Your task to perform on an android device: Check the news Image 0: 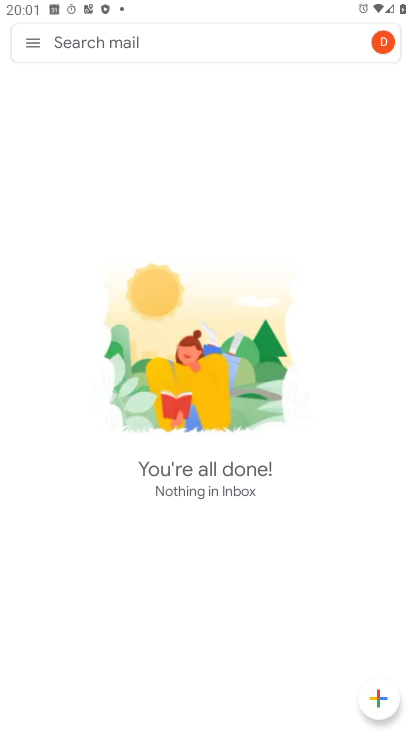
Step 0: press home button
Your task to perform on an android device: Check the news Image 1: 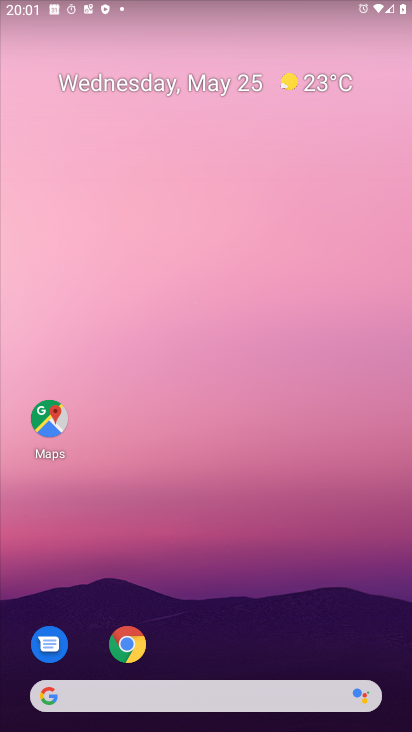
Step 1: drag from (272, 706) to (117, 13)
Your task to perform on an android device: Check the news Image 2: 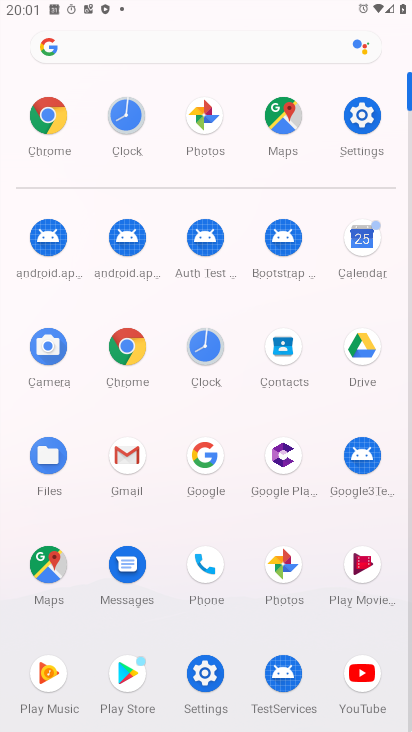
Step 2: click (134, 36)
Your task to perform on an android device: Check the news Image 3: 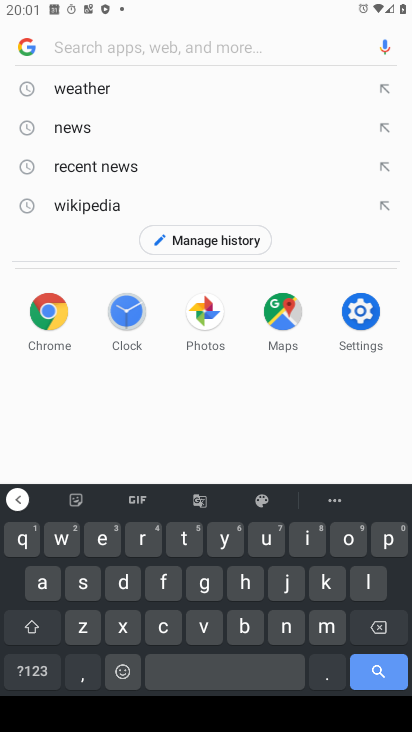
Step 3: click (83, 120)
Your task to perform on an android device: Check the news Image 4: 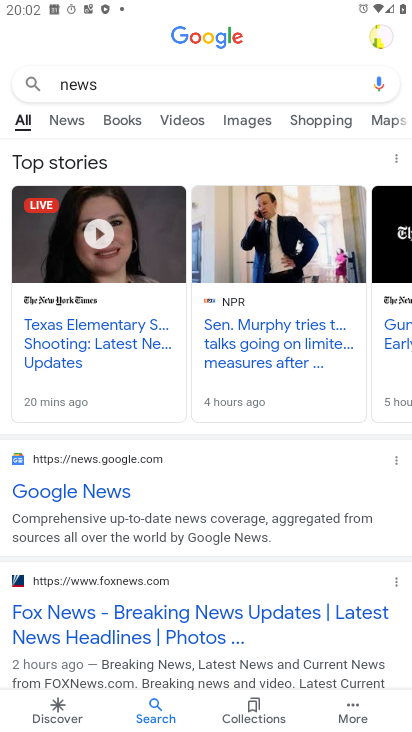
Step 4: task complete